Your task to perform on an android device: all mails in gmail Image 0: 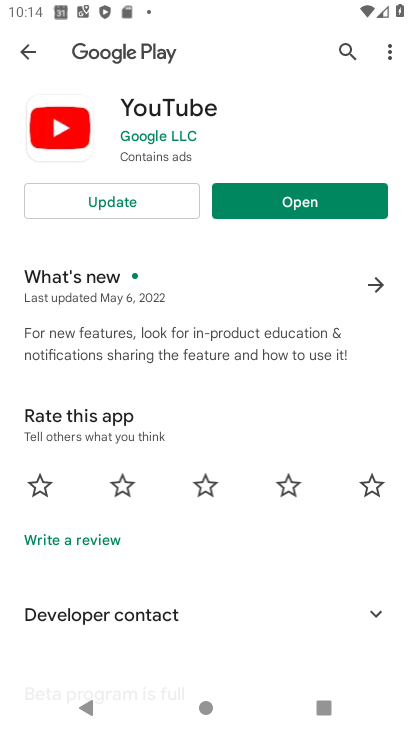
Step 0: press home button
Your task to perform on an android device: all mails in gmail Image 1: 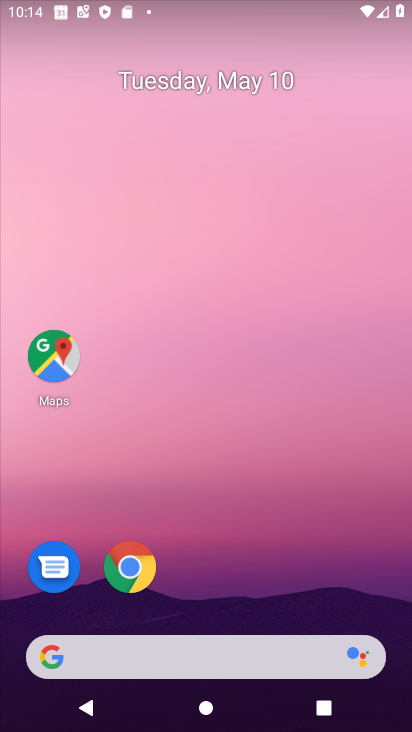
Step 1: drag from (35, 629) to (210, 126)
Your task to perform on an android device: all mails in gmail Image 2: 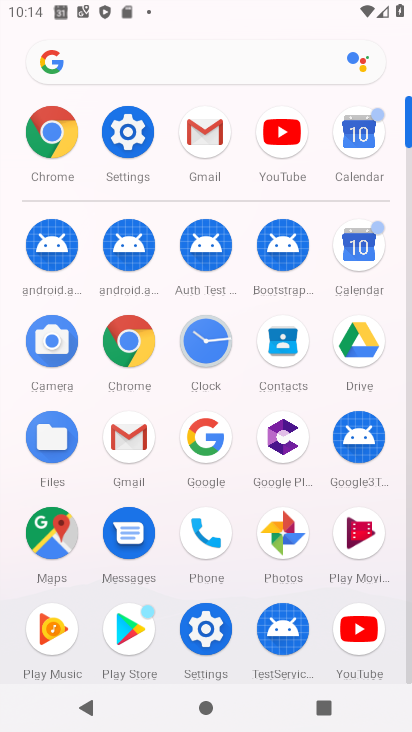
Step 2: click (112, 458)
Your task to perform on an android device: all mails in gmail Image 3: 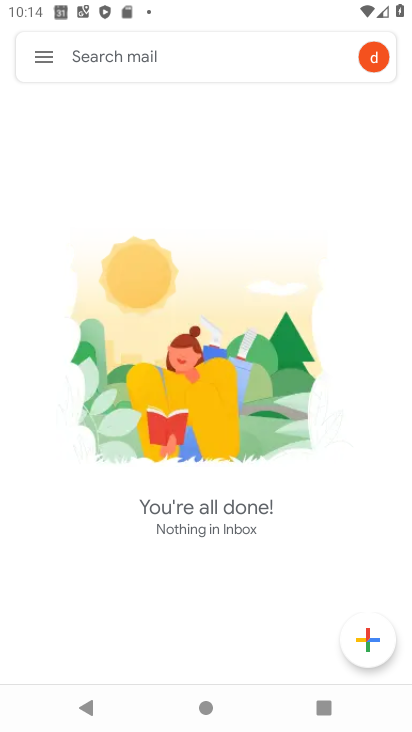
Step 3: click (37, 50)
Your task to perform on an android device: all mails in gmail Image 4: 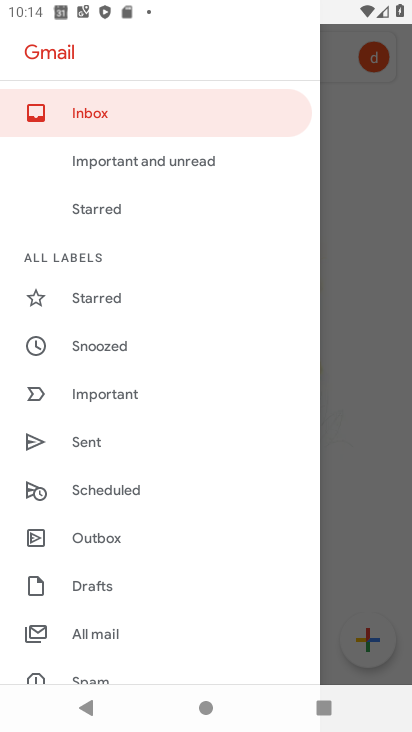
Step 4: click (86, 636)
Your task to perform on an android device: all mails in gmail Image 5: 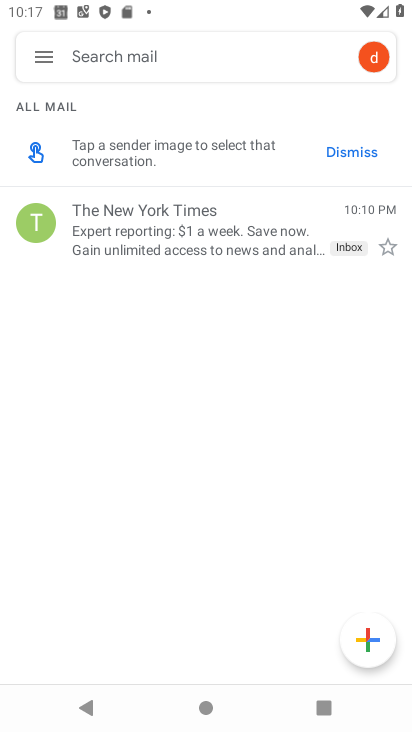
Step 5: task complete